Your task to perform on an android device: Show me recent news Image 0: 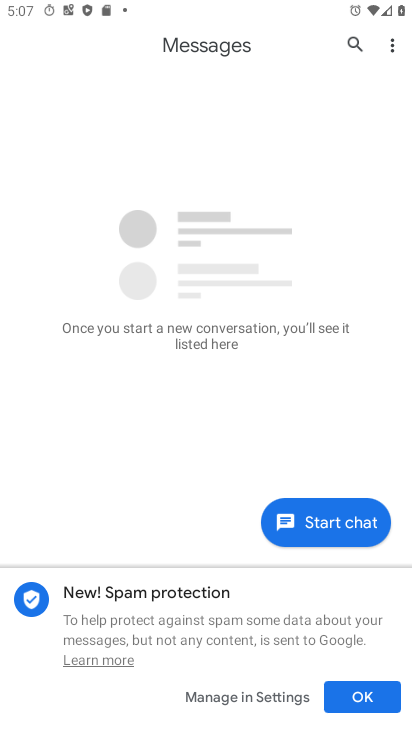
Step 0: press home button
Your task to perform on an android device: Show me recent news Image 1: 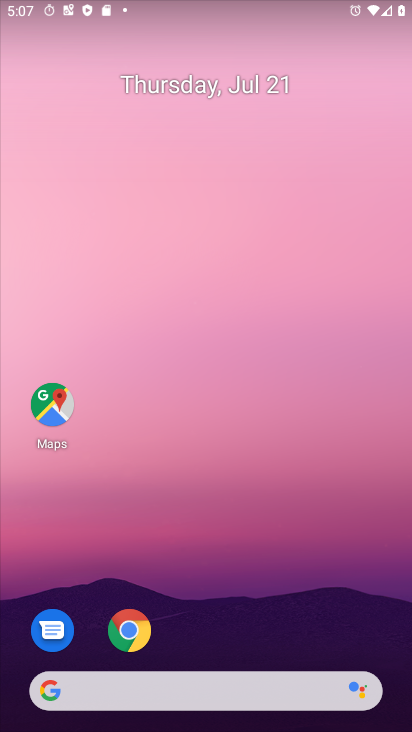
Step 1: drag from (194, 684) to (249, 424)
Your task to perform on an android device: Show me recent news Image 2: 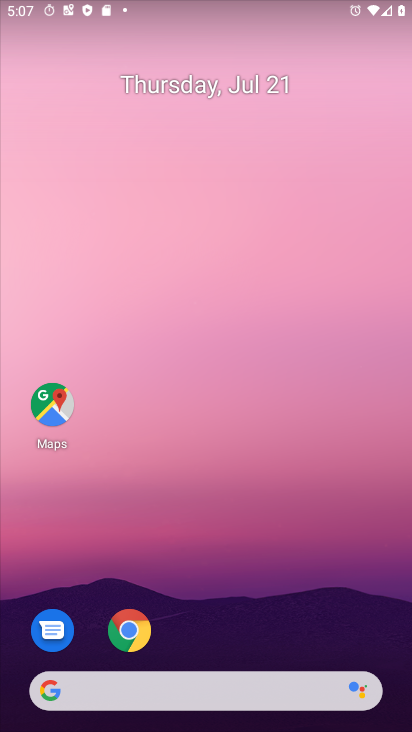
Step 2: drag from (180, 698) to (371, 155)
Your task to perform on an android device: Show me recent news Image 3: 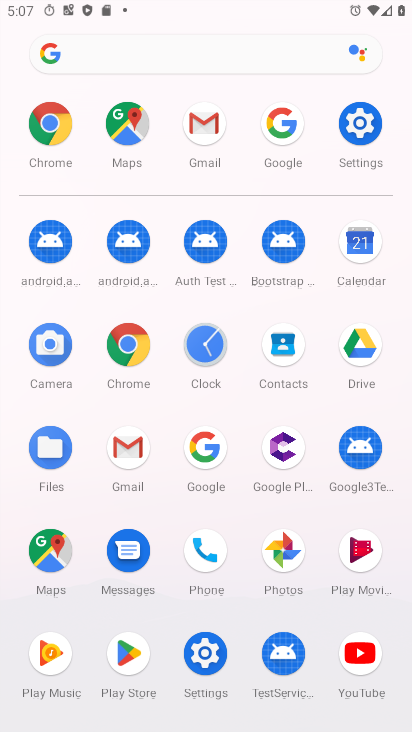
Step 3: click (279, 122)
Your task to perform on an android device: Show me recent news Image 4: 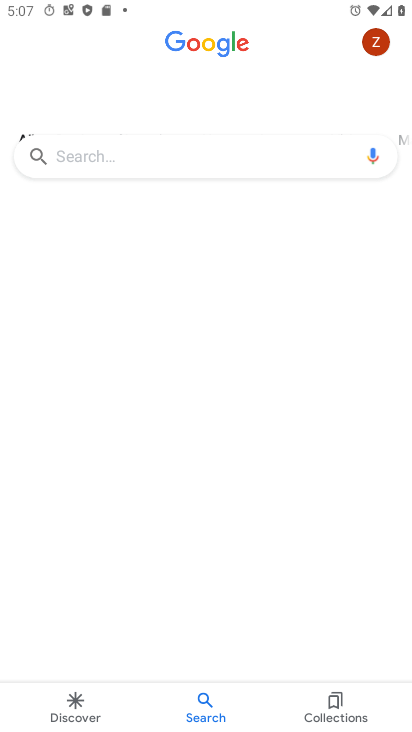
Step 4: click (242, 157)
Your task to perform on an android device: Show me recent news Image 5: 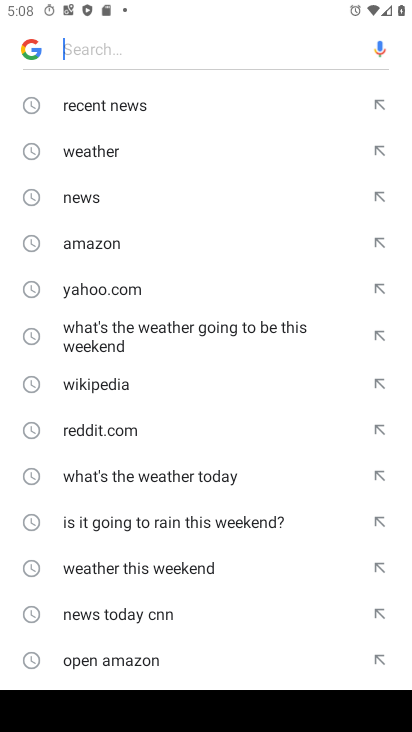
Step 5: click (116, 106)
Your task to perform on an android device: Show me recent news Image 6: 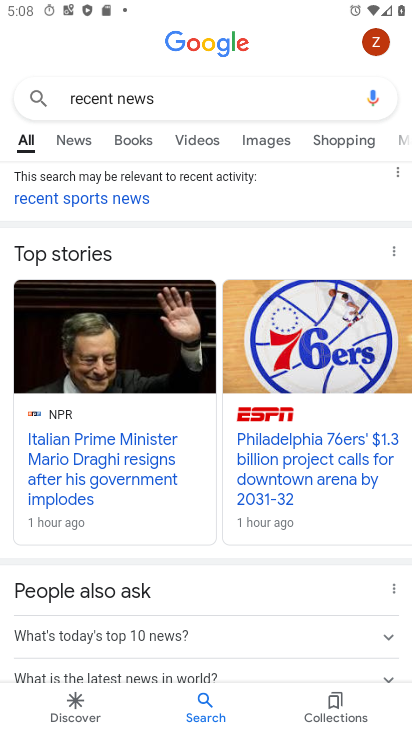
Step 6: click (104, 469)
Your task to perform on an android device: Show me recent news Image 7: 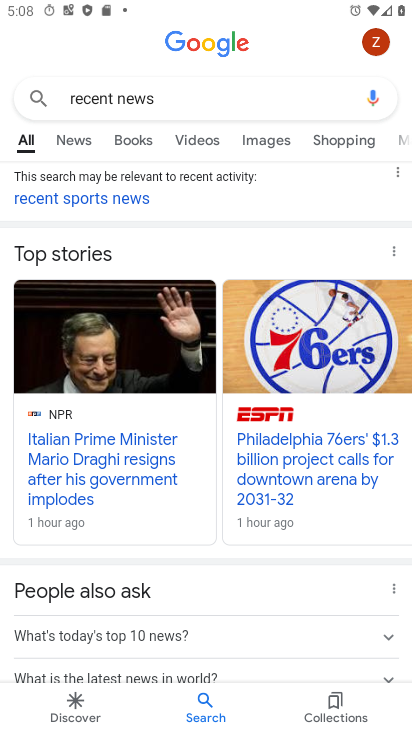
Step 7: click (104, 469)
Your task to perform on an android device: Show me recent news Image 8: 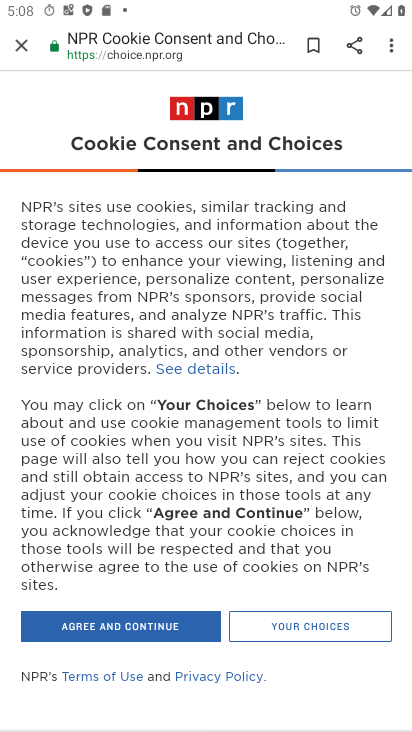
Step 8: task complete